Your task to perform on an android device: Open wifi settings Image 0: 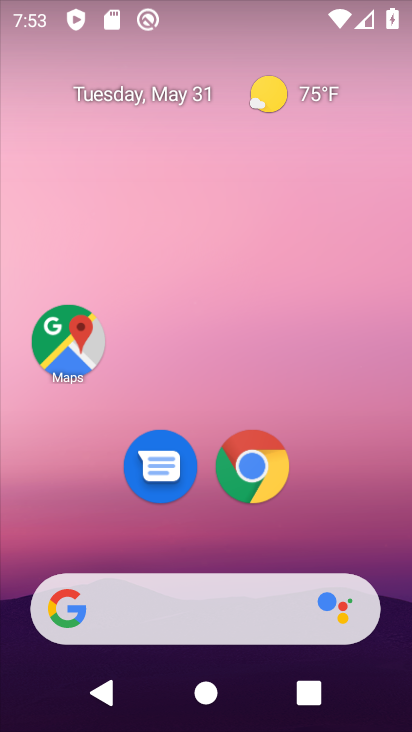
Step 0: drag from (191, 547) to (239, 275)
Your task to perform on an android device: Open wifi settings Image 1: 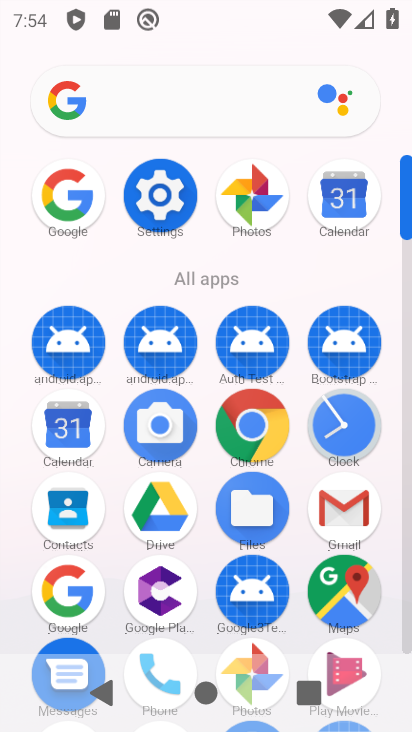
Step 1: click (165, 165)
Your task to perform on an android device: Open wifi settings Image 2: 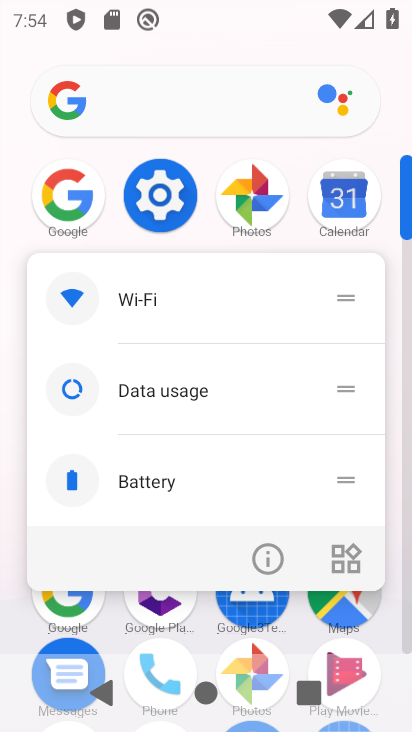
Step 2: click (256, 540)
Your task to perform on an android device: Open wifi settings Image 3: 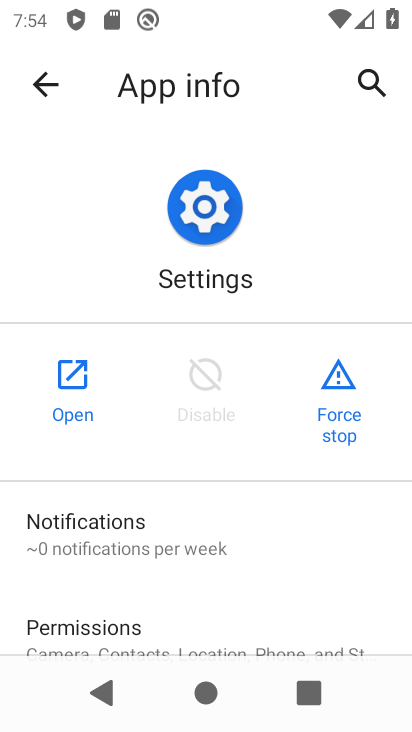
Step 3: click (90, 377)
Your task to perform on an android device: Open wifi settings Image 4: 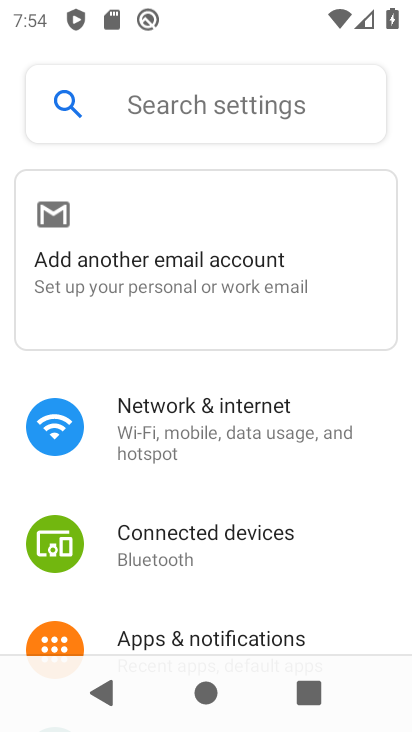
Step 4: drag from (240, 529) to (289, 289)
Your task to perform on an android device: Open wifi settings Image 5: 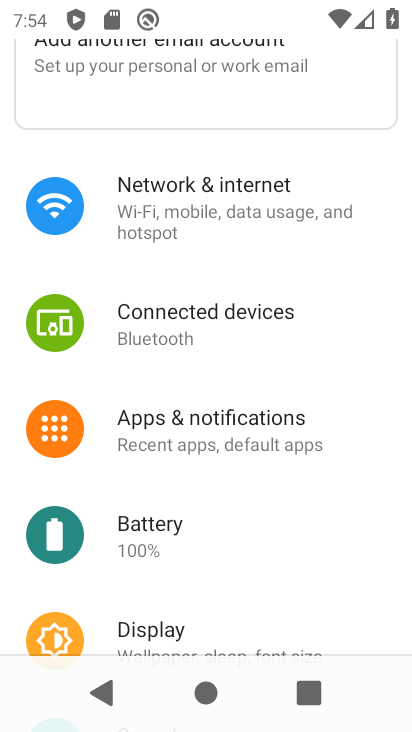
Step 5: click (228, 217)
Your task to perform on an android device: Open wifi settings Image 6: 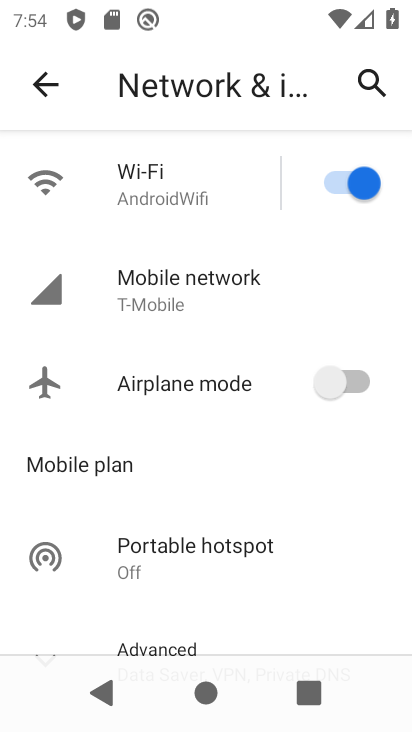
Step 6: click (221, 201)
Your task to perform on an android device: Open wifi settings Image 7: 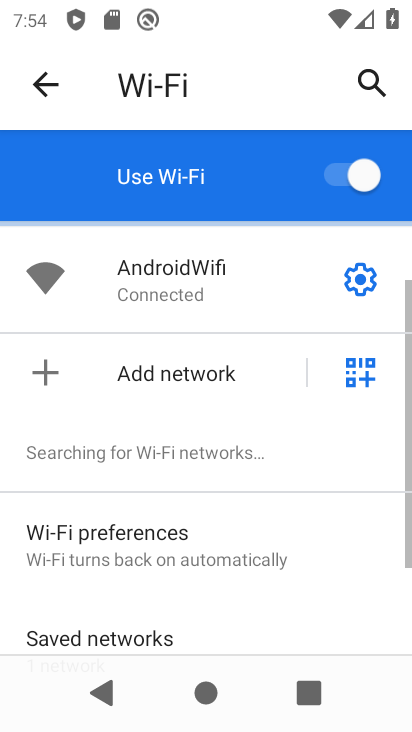
Step 7: task complete